Your task to perform on an android device: choose inbox layout in the gmail app Image 0: 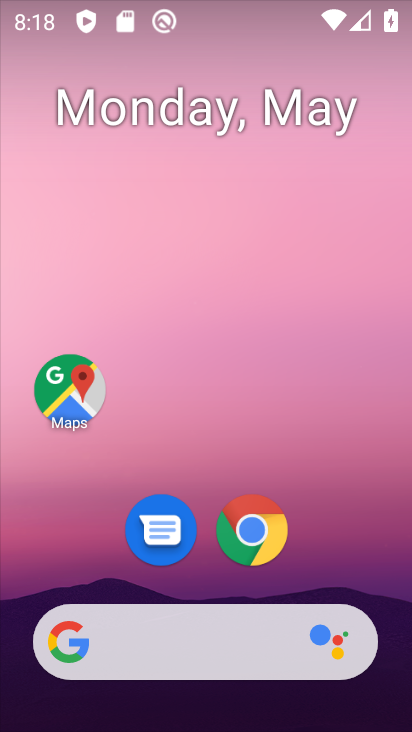
Step 0: drag from (382, 603) to (274, 100)
Your task to perform on an android device: choose inbox layout in the gmail app Image 1: 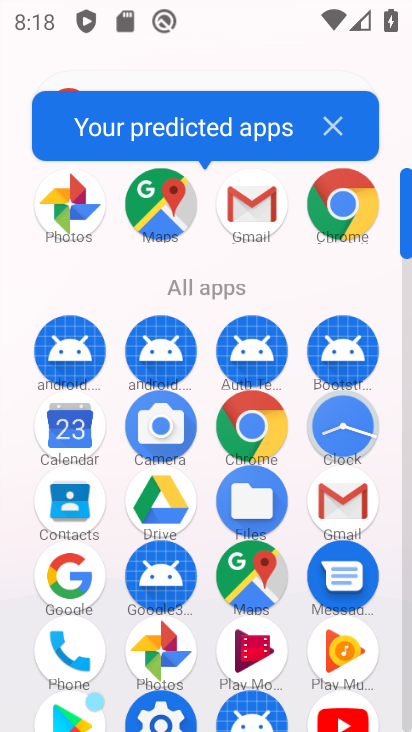
Step 1: click (251, 199)
Your task to perform on an android device: choose inbox layout in the gmail app Image 2: 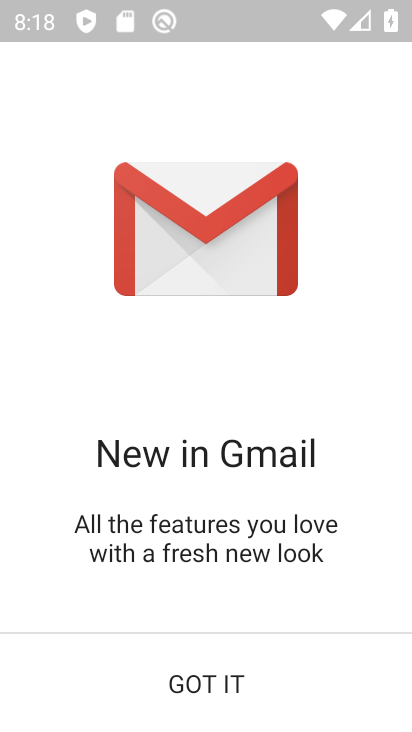
Step 2: click (213, 678)
Your task to perform on an android device: choose inbox layout in the gmail app Image 3: 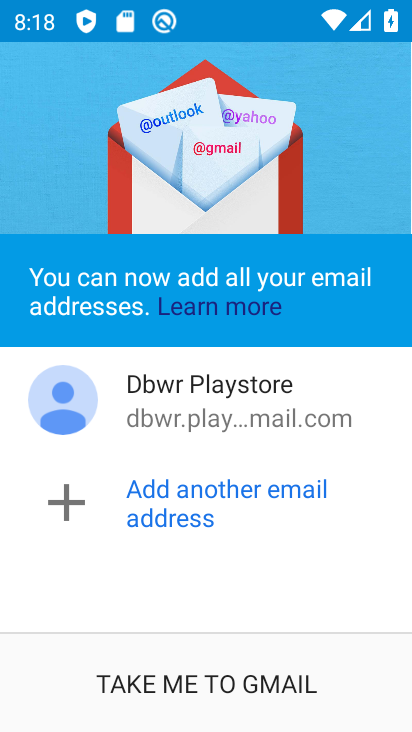
Step 3: click (213, 678)
Your task to perform on an android device: choose inbox layout in the gmail app Image 4: 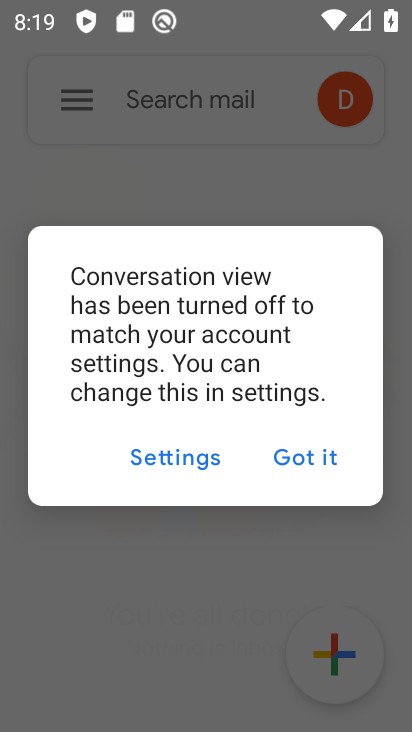
Step 4: click (301, 481)
Your task to perform on an android device: choose inbox layout in the gmail app Image 5: 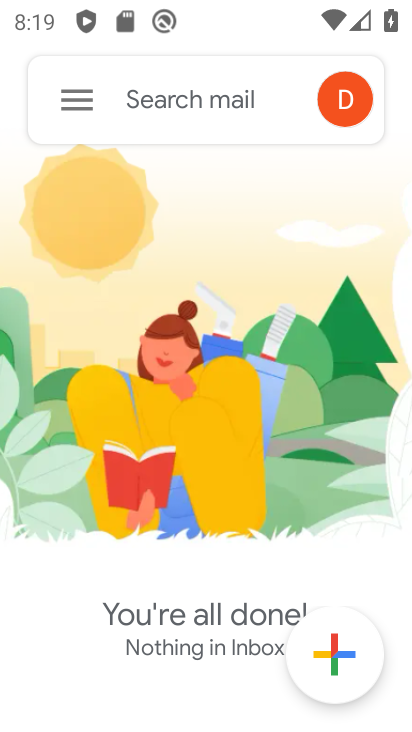
Step 5: click (68, 108)
Your task to perform on an android device: choose inbox layout in the gmail app Image 6: 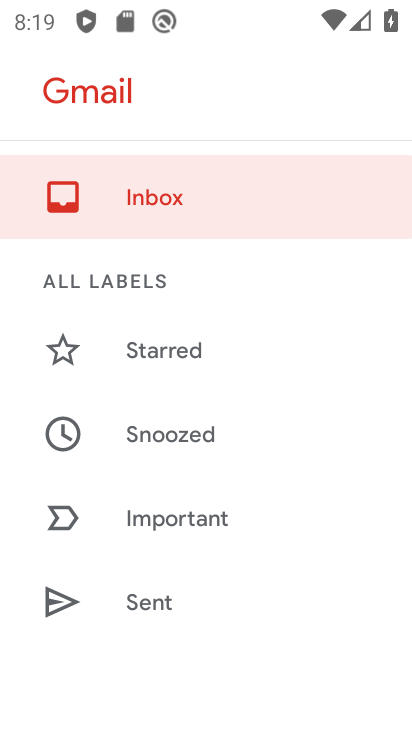
Step 6: drag from (194, 615) to (182, 188)
Your task to perform on an android device: choose inbox layout in the gmail app Image 7: 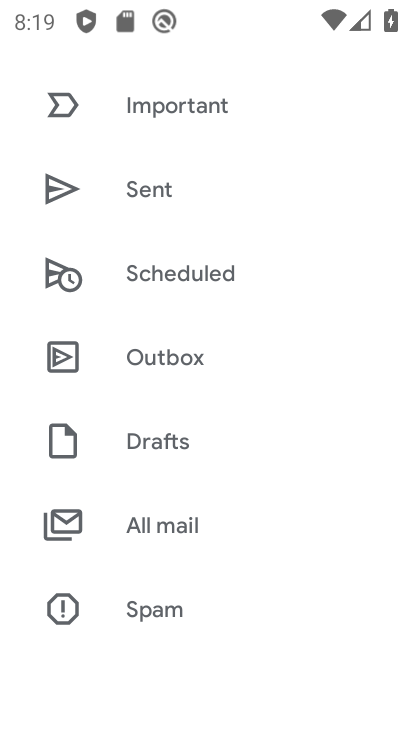
Step 7: drag from (159, 642) to (160, 92)
Your task to perform on an android device: choose inbox layout in the gmail app Image 8: 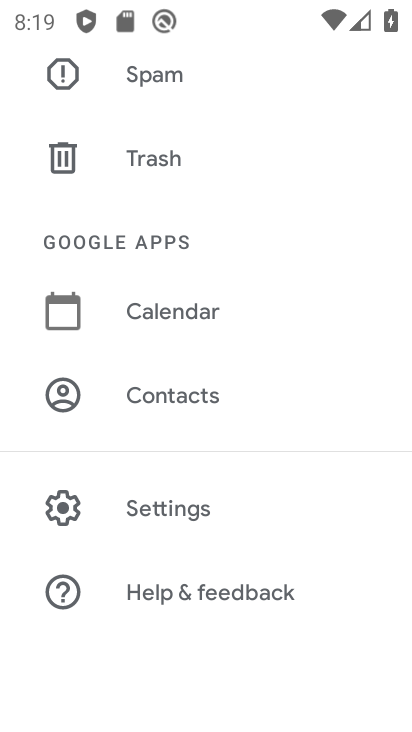
Step 8: click (163, 520)
Your task to perform on an android device: choose inbox layout in the gmail app Image 9: 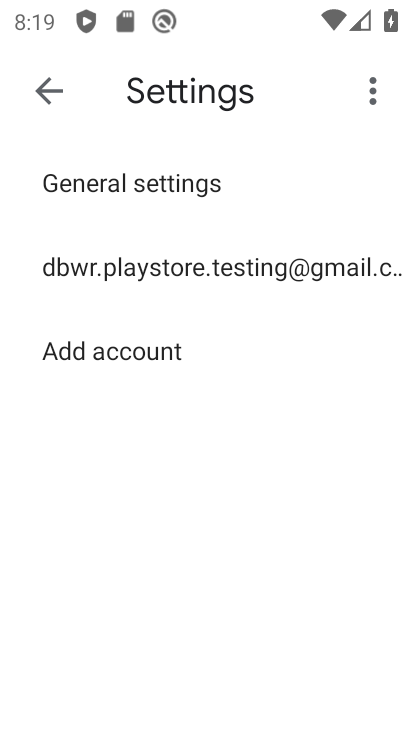
Step 9: click (273, 269)
Your task to perform on an android device: choose inbox layout in the gmail app Image 10: 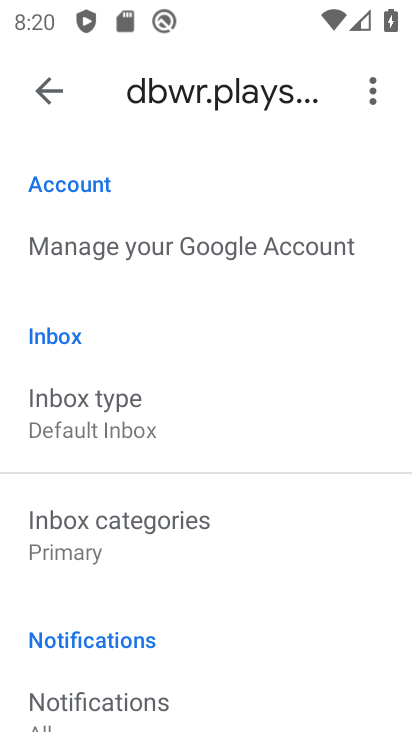
Step 10: click (223, 410)
Your task to perform on an android device: choose inbox layout in the gmail app Image 11: 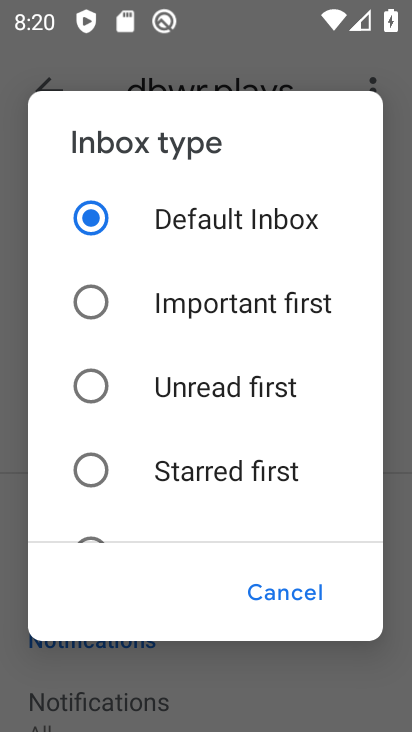
Step 11: click (250, 309)
Your task to perform on an android device: choose inbox layout in the gmail app Image 12: 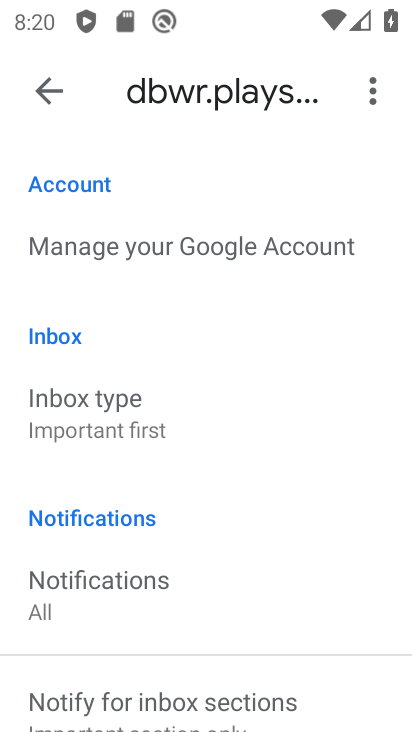
Step 12: task complete